Your task to perform on an android device: turn on sleep mode Image 0: 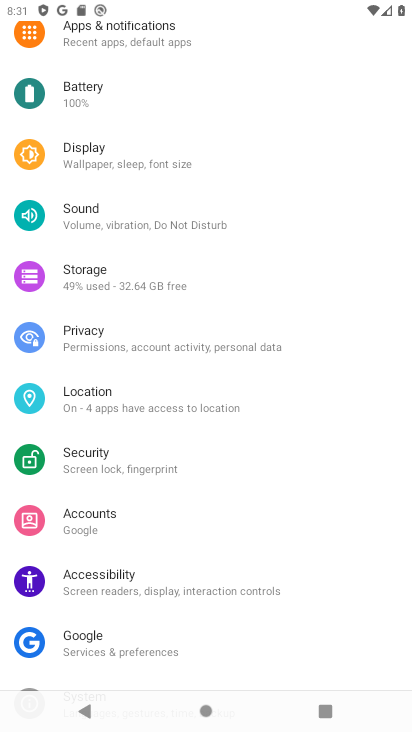
Step 0: press back button
Your task to perform on an android device: turn on sleep mode Image 1: 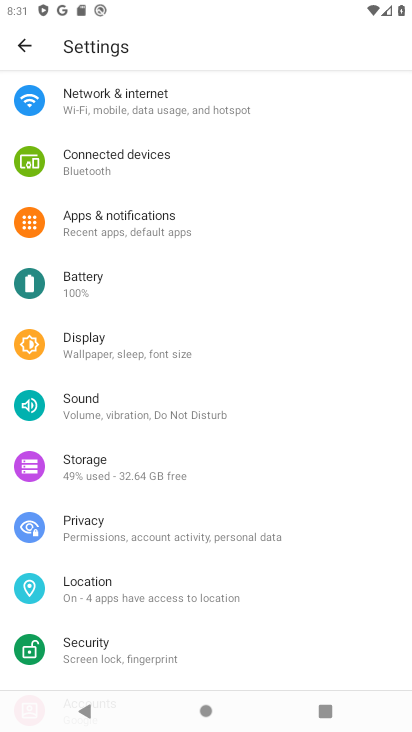
Step 1: click (93, 350)
Your task to perform on an android device: turn on sleep mode Image 2: 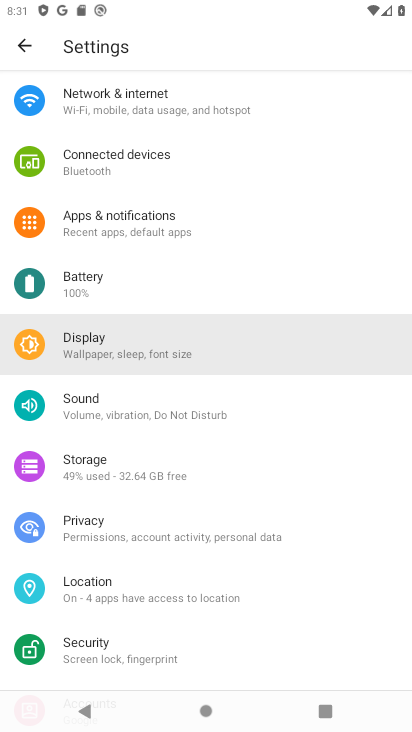
Step 2: click (94, 348)
Your task to perform on an android device: turn on sleep mode Image 3: 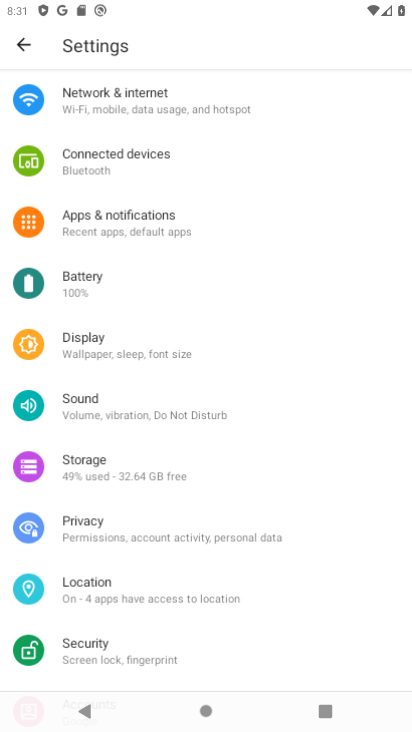
Step 3: click (97, 349)
Your task to perform on an android device: turn on sleep mode Image 4: 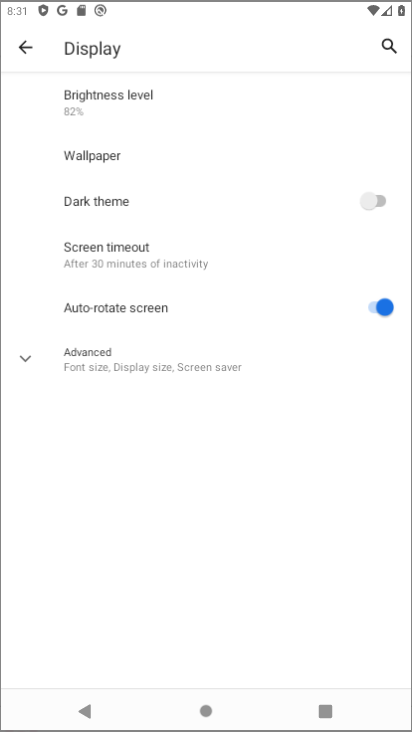
Step 4: click (100, 354)
Your task to perform on an android device: turn on sleep mode Image 5: 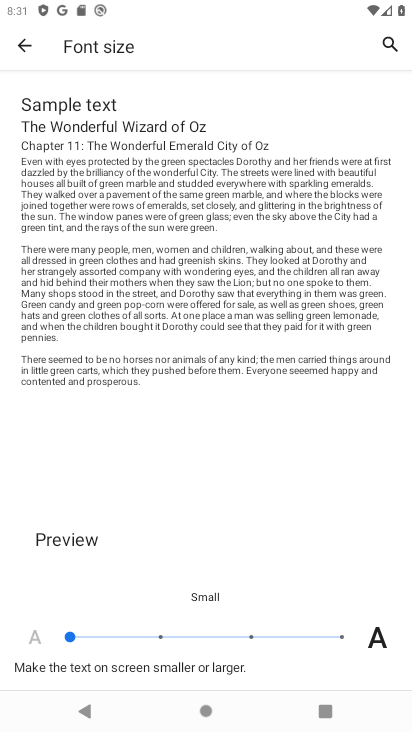
Step 5: click (16, 42)
Your task to perform on an android device: turn on sleep mode Image 6: 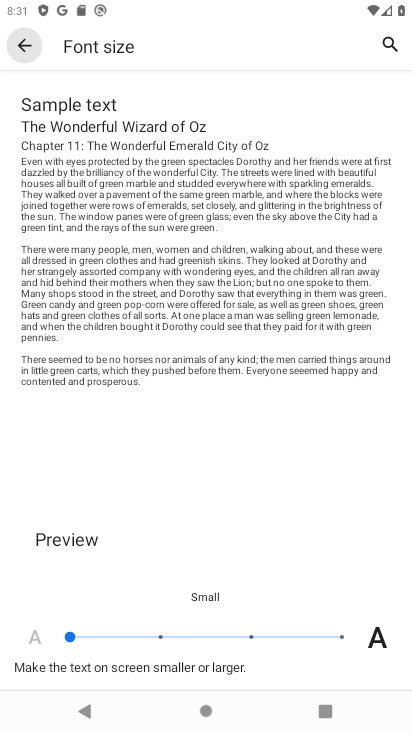
Step 6: click (16, 42)
Your task to perform on an android device: turn on sleep mode Image 7: 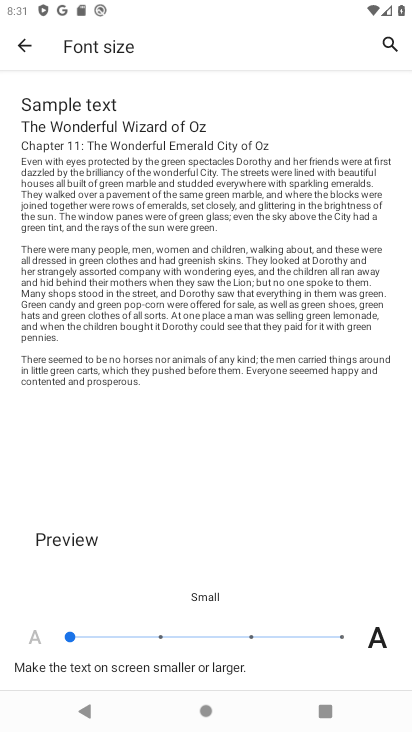
Step 7: click (17, 43)
Your task to perform on an android device: turn on sleep mode Image 8: 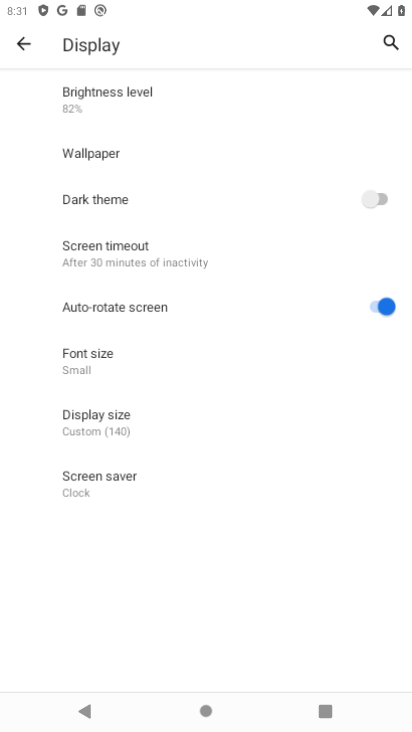
Step 8: click (17, 43)
Your task to perform on an android device: turn on sleep mode Image 9: 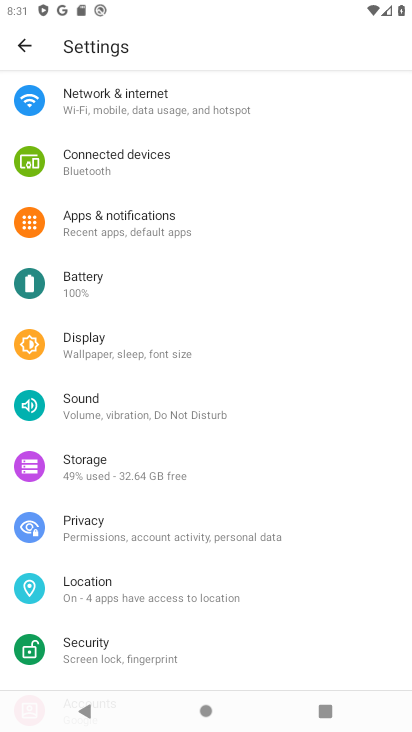
Step 9: click (86, 352)
Your task to perform on an android device: turn on sleep mode Image 10: 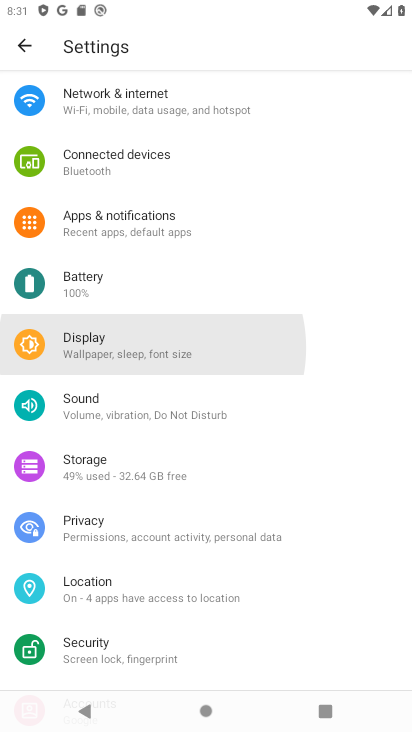
Step 10: click (88, 351)
Your task to perform on an android device: turn on sleep mode Image 11: 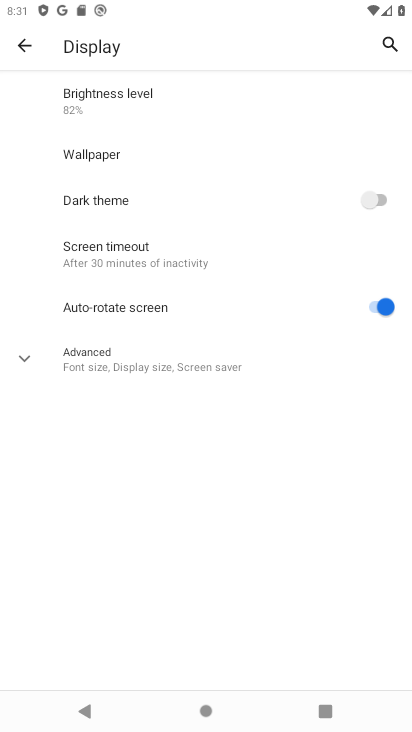
Step 11: click (117, 249)
Your task to perform on an android device: turn on sleep mode Image 12: 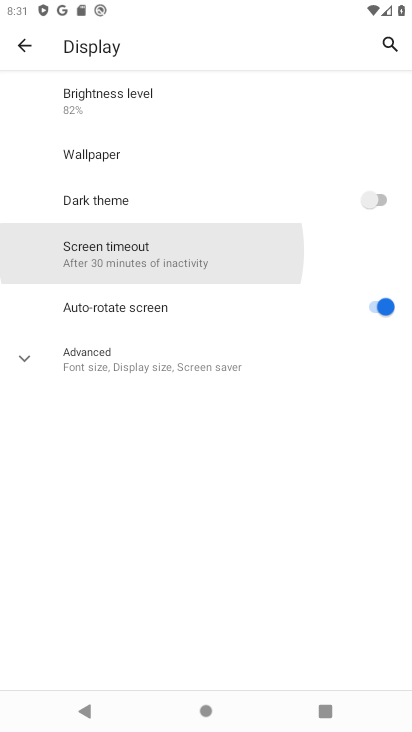
Step 12: click (114, 248)
Your task to perform on an android device: turn on sleep mode Image 13: 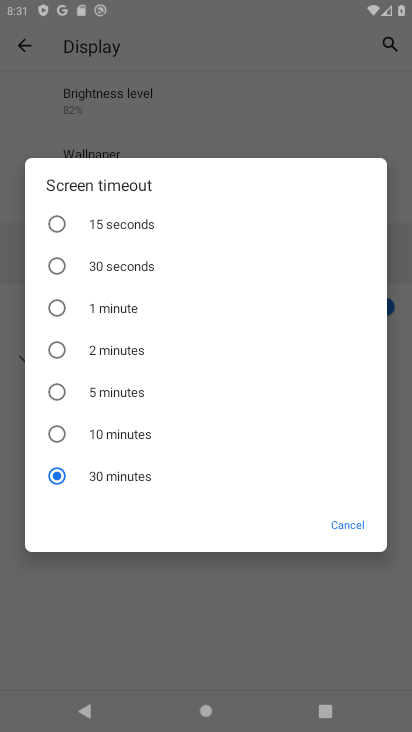
Step 13: click (109, 253)
Your task to perform on an android device: turn on sleep mode Image 14: 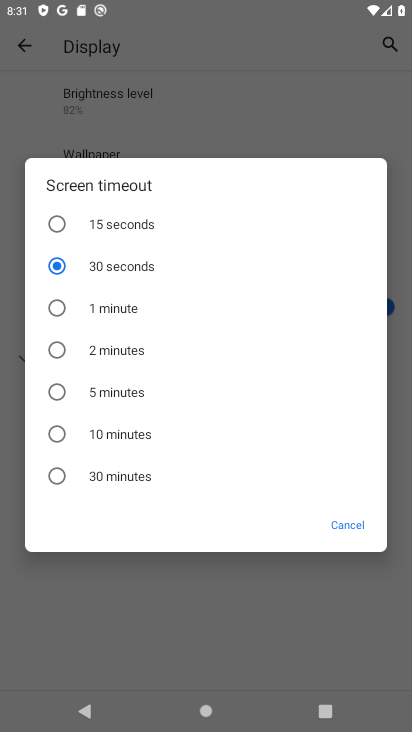
Step 14: task complete